Your task to perform on an android device: turn off javascript in the chrome app Image 0: 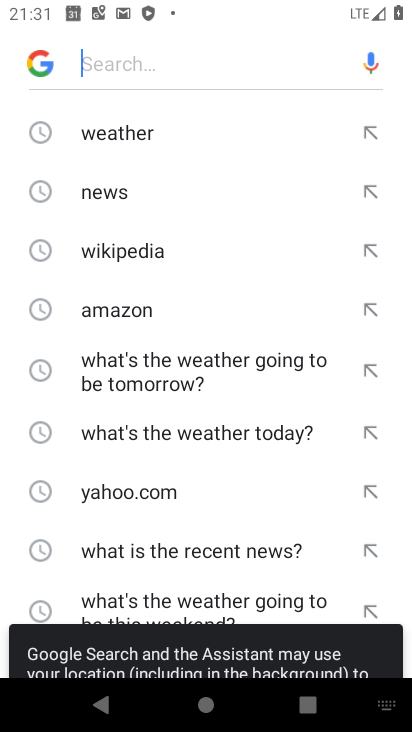
Step 0: press home button
Your task to perform on an android device: turn off javascript in the chrome app Image 1: 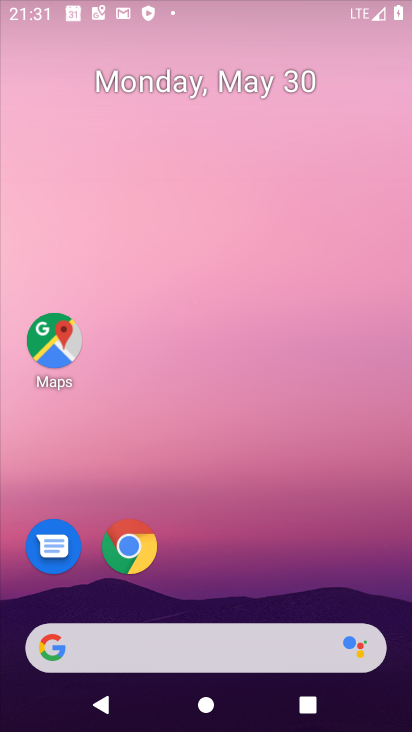
Step 1: drag from (353, 602) to (315, 170)
Your task to perform on an android device: turn off javascript in the chrome app Image 2: 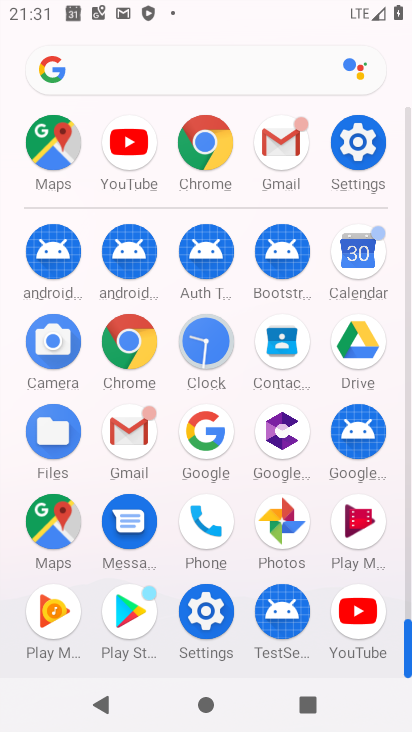
Step 2: click (137, 337)
Your task to perform on an android device: turn off javascript in the chrome app Image 3: 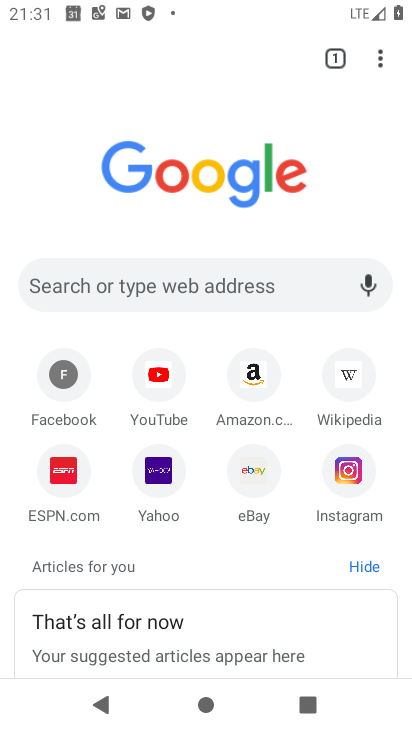
Step 3: drag from (375, 68) to (217, 499)
Your task to perform on an android device: turn off javascript in the chrome app Image 4: 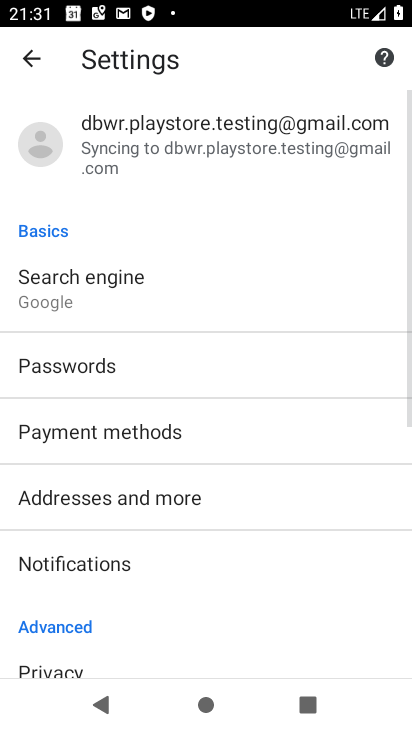
Step 4: drag from (207, 649) to (259, 290)
Your task to perform on an android device: turn off javascript in the chrome app Image 5: 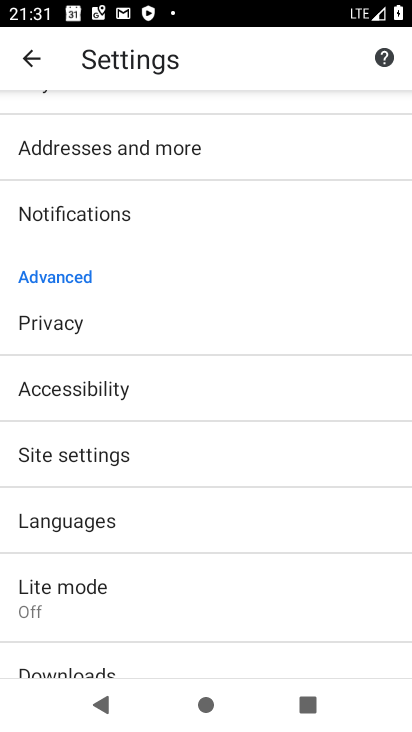
Step 5: drag from (190, 613) to (209, 343)
Your task to perform on an android device: turn off javascript in the chrome app Image 6: 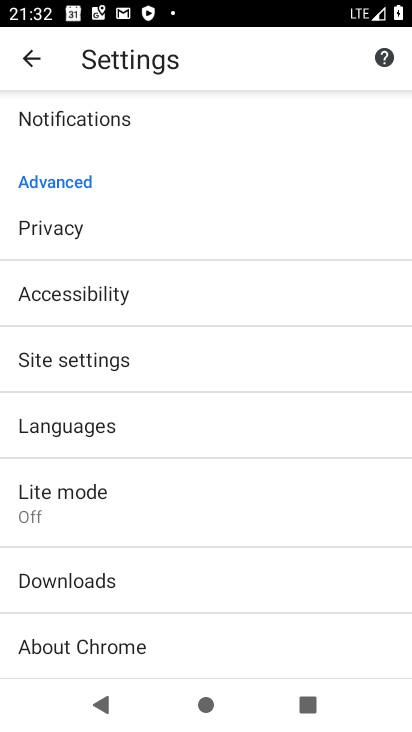
Step 6: click (135, 370)
Your task to perform on an android device: turn off javascript in the chrome app Image 7: 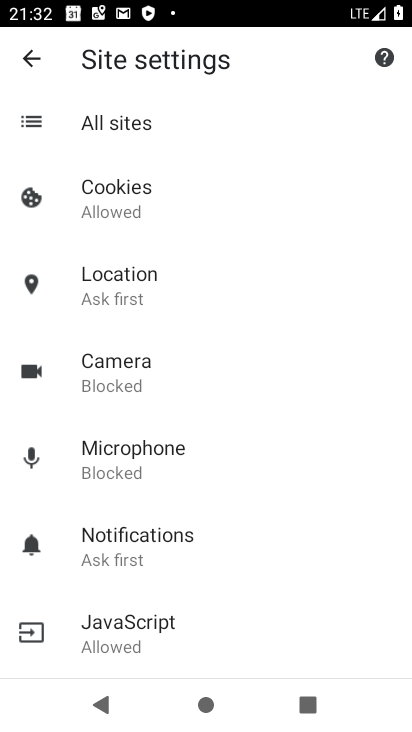
Step 7: click (110, 632)
Your task to perform on an android device: turn off javascript in the chrome app Image 8: 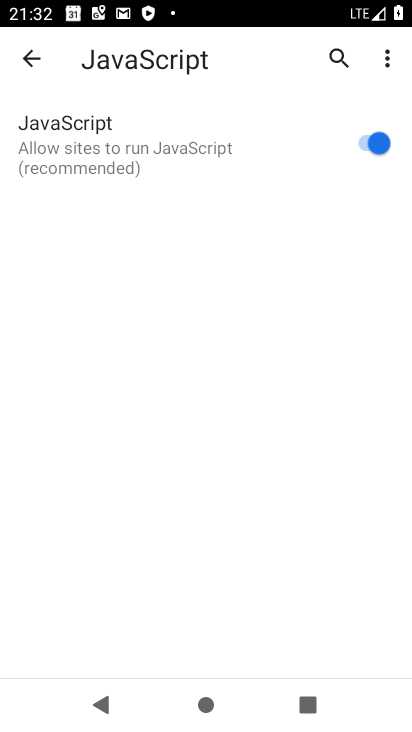
Step 8: click (373, 139)
Your task to perform on an android device: turn off javascript in the chrome app Image 9: 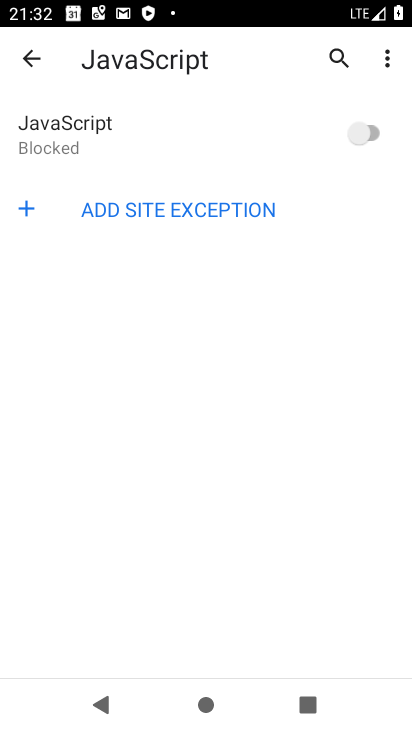
Step 9: task complete